Your task to perform on an android device: check the backup settings in the google photos Image 0: 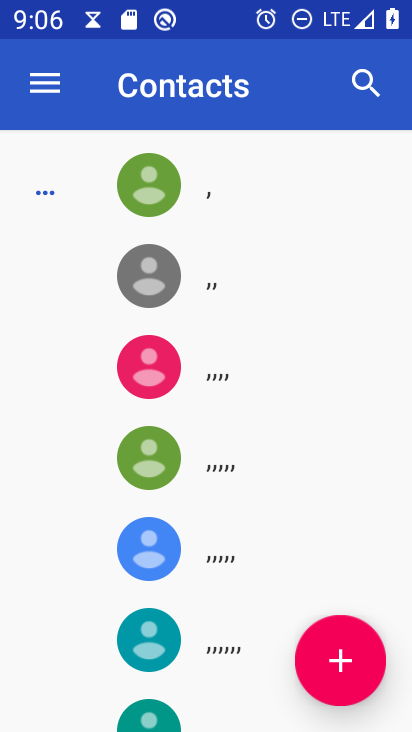
Step 0: press home button
Your task to perform on an android device: check the backup settings in the google photos Image 1: 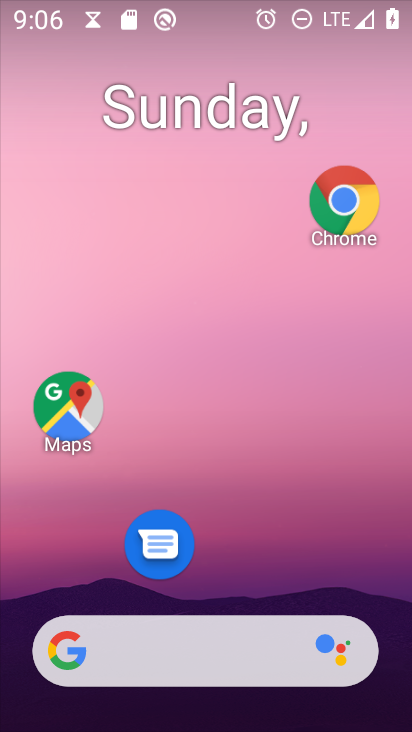
Step 1: drag from (271, 566) to (274, 42)
Your task to perform on an android device: check the backup settings in the google photos Image 2: 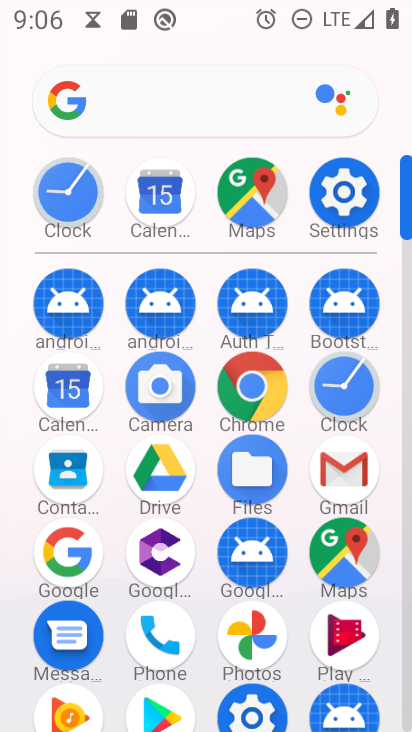
Step 2: click (246, 618)
Your task to perform on an android device: check the backup settings in the google photos Image 3: 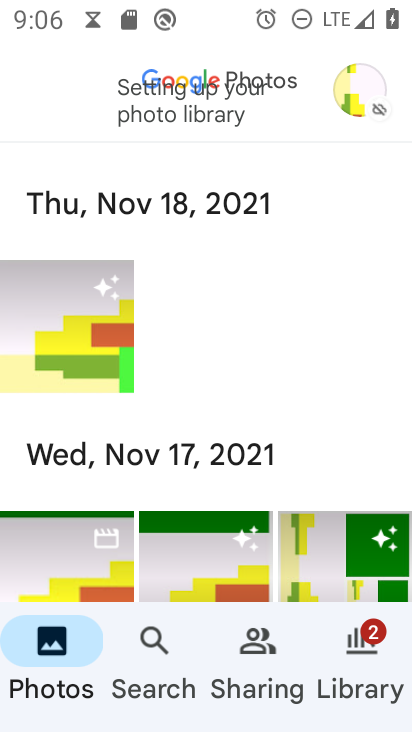
Step 3: click (347, 97)
Your task to perform on an android device: check the backup settings in the google photos Image 4: 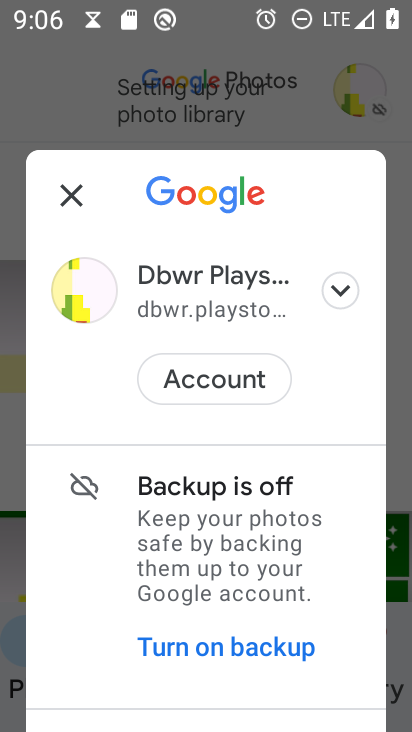
Step 4: drag from (197, 616) to (227, 345)
Your task to perform on an android device: check the backup settings in the google photos Image 5: 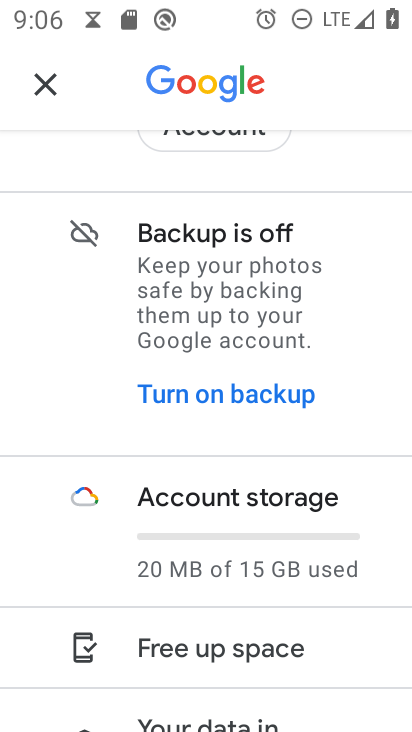
Step 5: drag from (213, 628) to (275, 327)
Your task to perform on an android device: check the backup settings in the google photos Image 6: 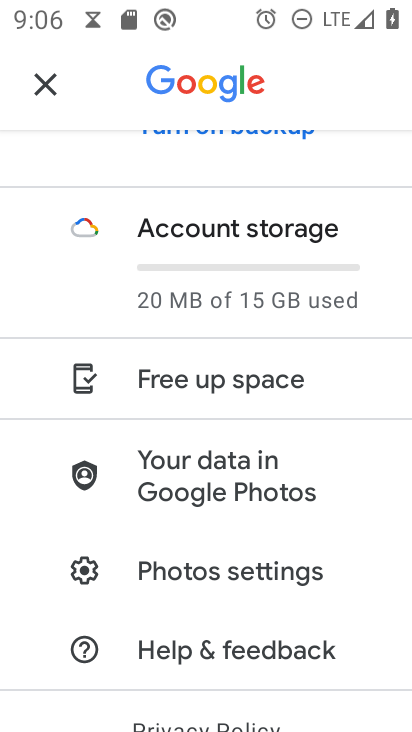
Step 6: click (186, 550)
Your task to perform on an android device: check the backup settings in the google photos Image 7: 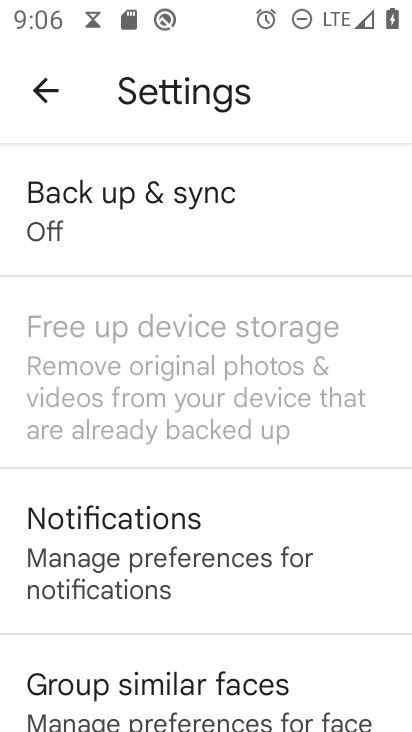
Step 7: click (172, 232)
Your task to perform on an android device: check the backup settings in the google photos Image 8: 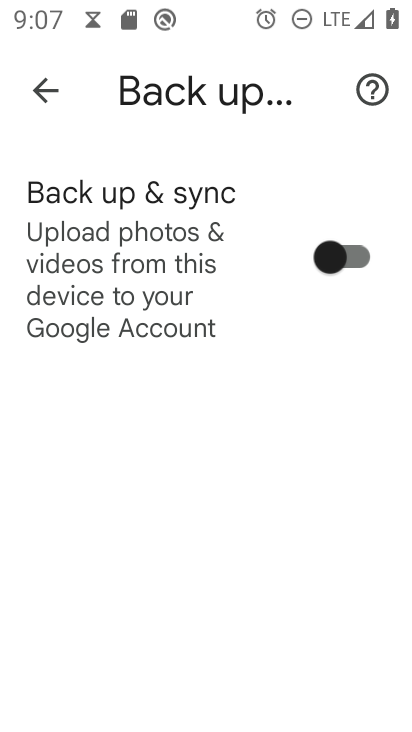
Step 8: task complete